Your task to perform on an android device: Go to display settings Image 0: 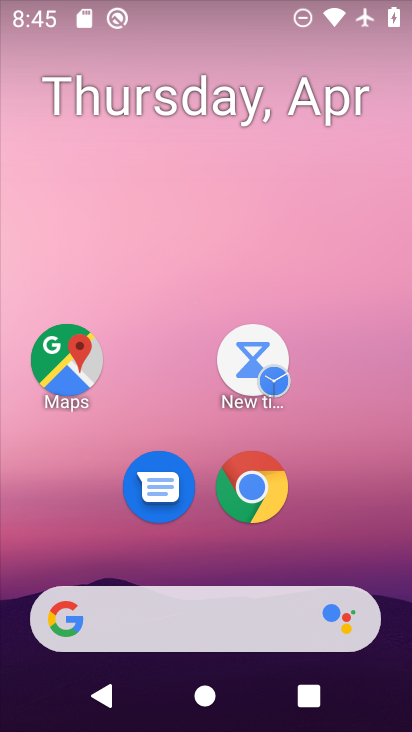
Step 0: drag from (332, 448) to (328, 89)
Your task to perform on an android device: Go to display settings Image 1: 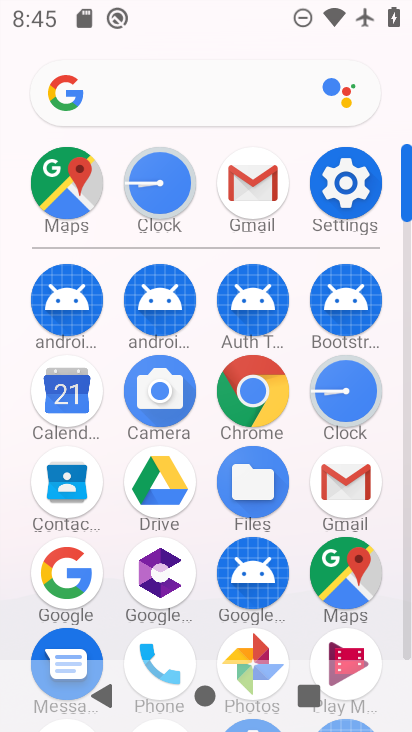
Step 1: click (330, 166)
Your task to perform on an android device: Go to display settings Image 2: 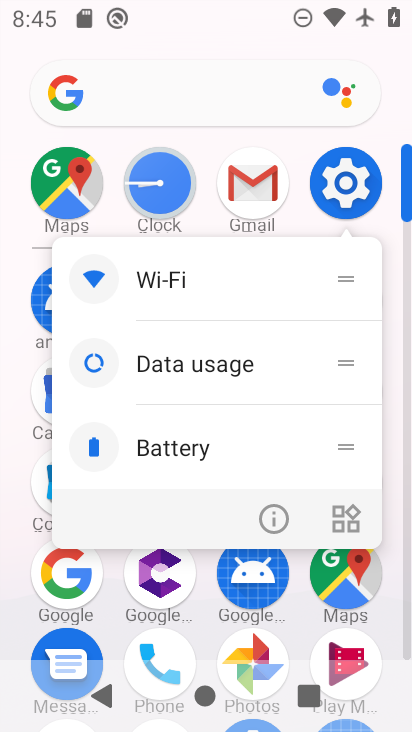
Step 2: click (352, 184)
Your task to perform on an android device: Go to display settings Image 3: 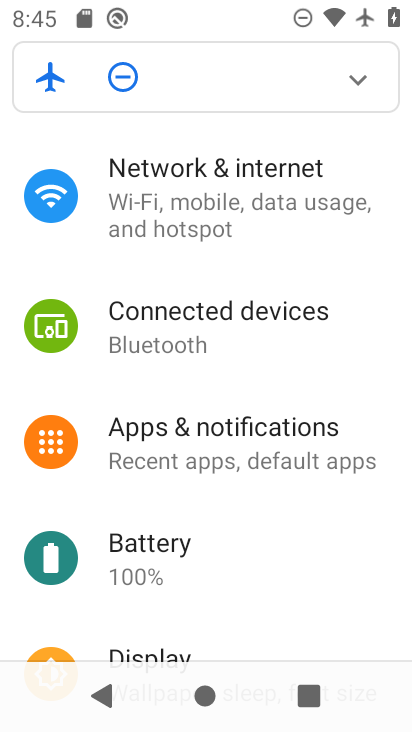
Step 3: drag from (154, 615) to (142, 317)
Your task to perform on an android device: Go to display settings Image 4: 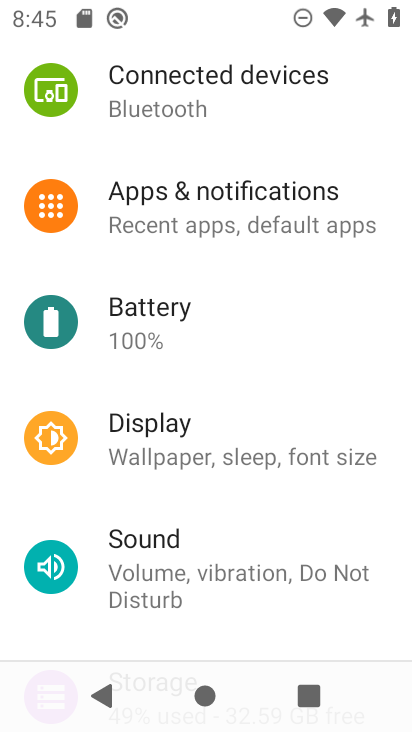
Step 4: click (145, 442)
Your task to perform on an android device: Go to display settings Image 5: 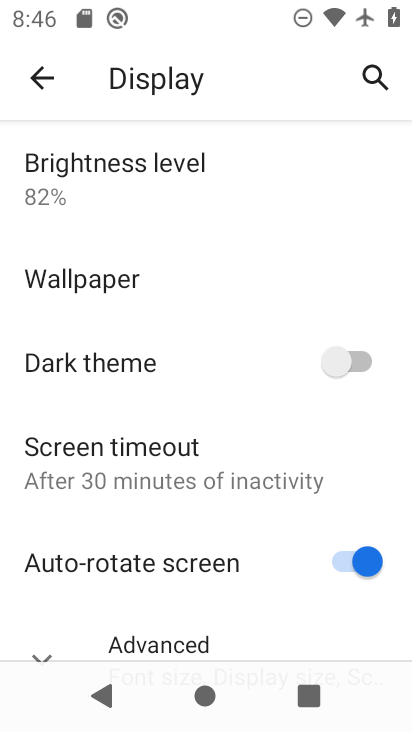
Step 5: task complete